Your task to perform on an android device: toggle sleep mode Image 0: 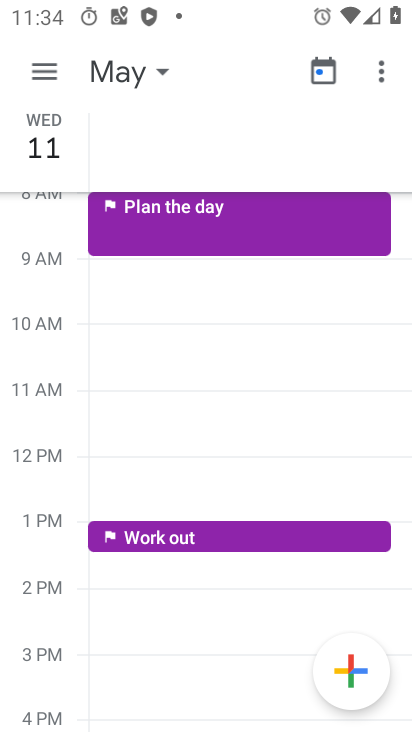
Step 0: press home button
Your task to perform on an android device: toggle sleep mode Image 1: 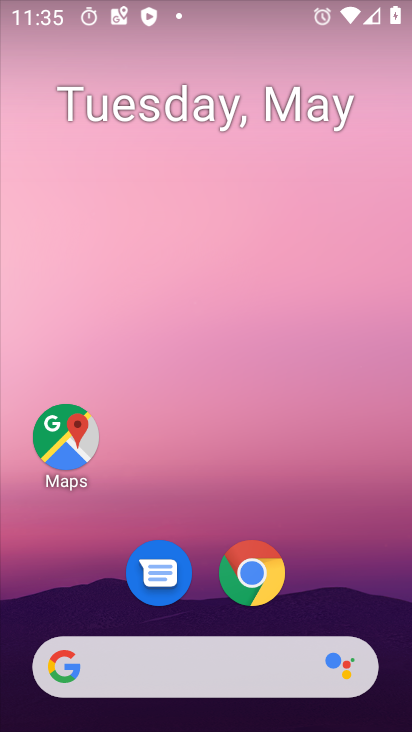
Step 1: drag from (308, 704) to (314, 211)
Your task to perform on an android device: toggle sleep mode Image 2: 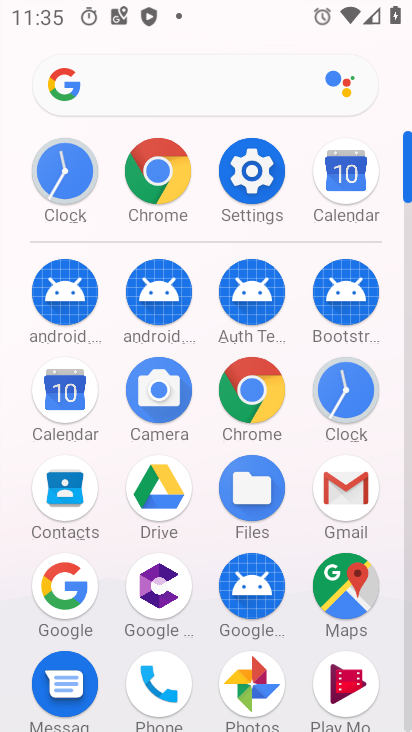
Step 2: click (263, 190)
Your task to perform on an android device: toggle sleep mode Image 3: 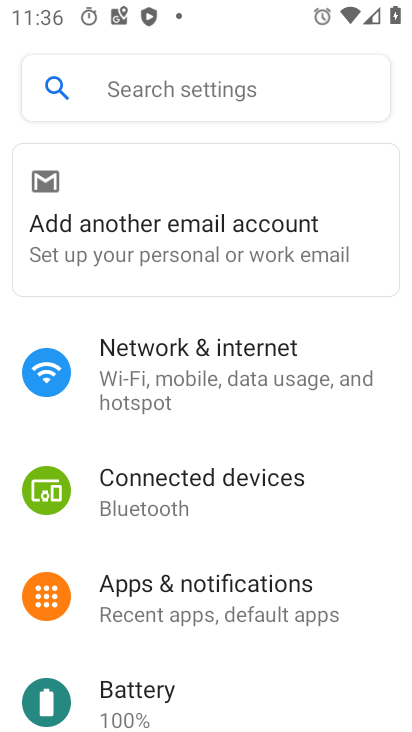
Step 3: click (207, 97)
Your task to perform on an android device: toggle sleep mode Image 4: 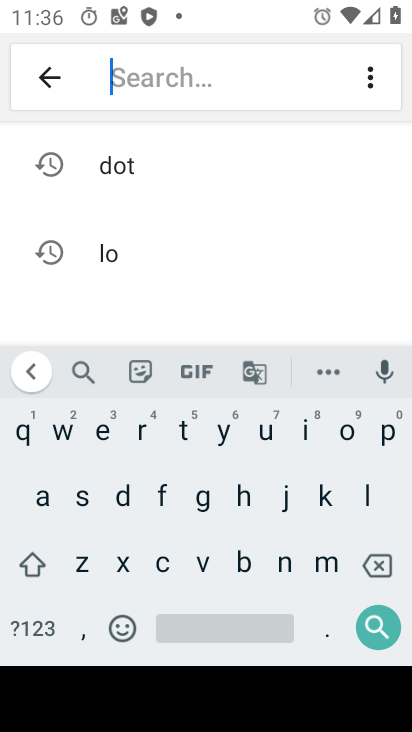
Step 4: click (76, 503)
Your task to perform on an android device: toggle sleep mode Image 5: 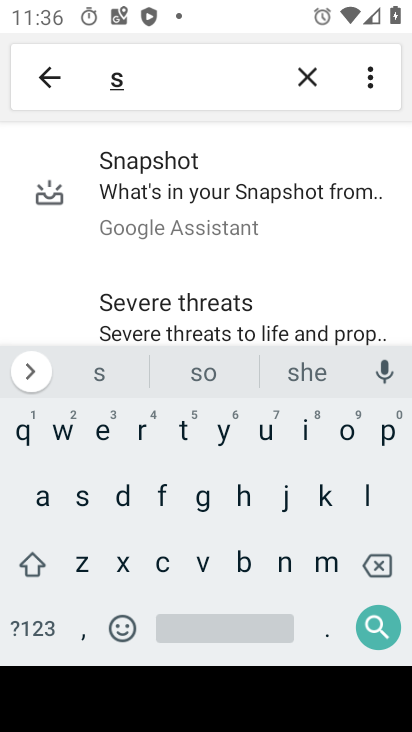
Step 5: click (361, 501)
Your task to perform on an android device: toggle sleep mode Image 6: 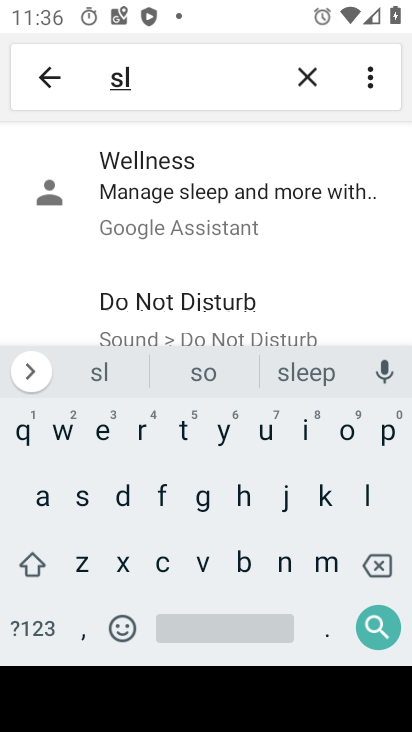
Step 6: click (102, 441)
Your task to perform on an android device: toggle sleep mode Image 7: 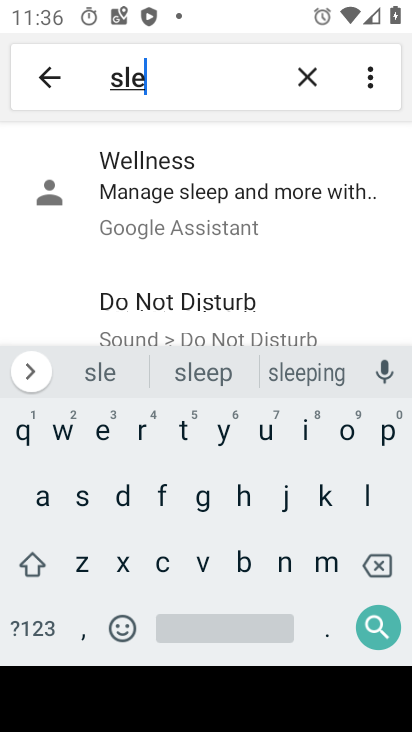
Step 7: click (234, 232)
Your task to perform on an android device: toggle sleep mode Image 8: 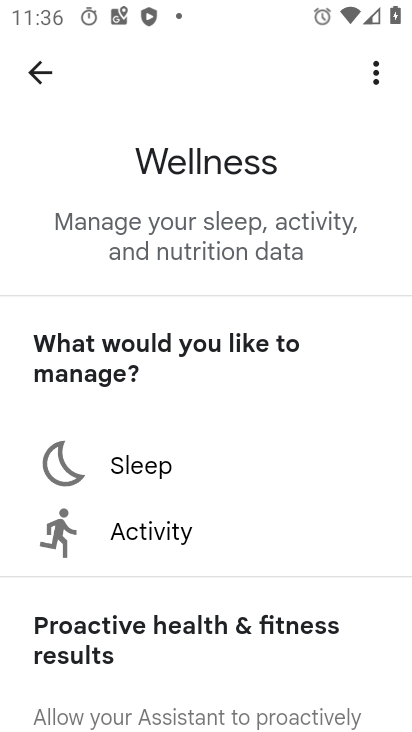
Step 8: click (136, 484)
Your task to perform on an android device: toggle sleep mode Image 9: 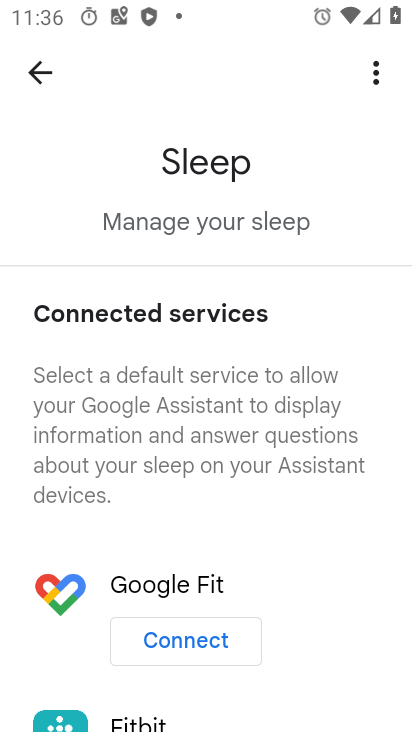
Step 9: task complete